Your task to perform on an android device: move an email to a new category in the gmail app Image 0: 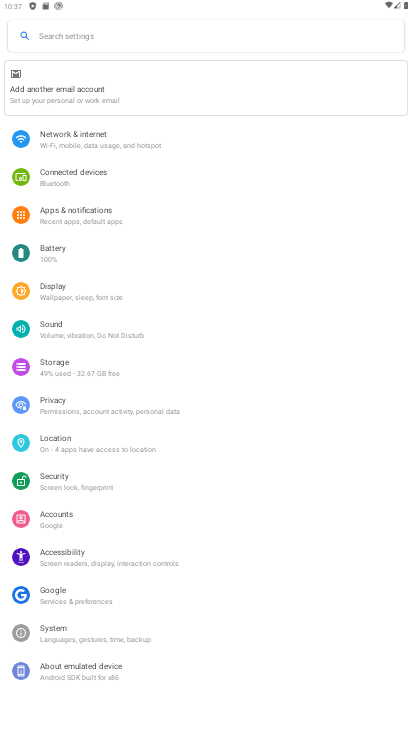
Step 0: press home button
Your task to perform on an android device: move an email to a new category in the gmail app Image 1: 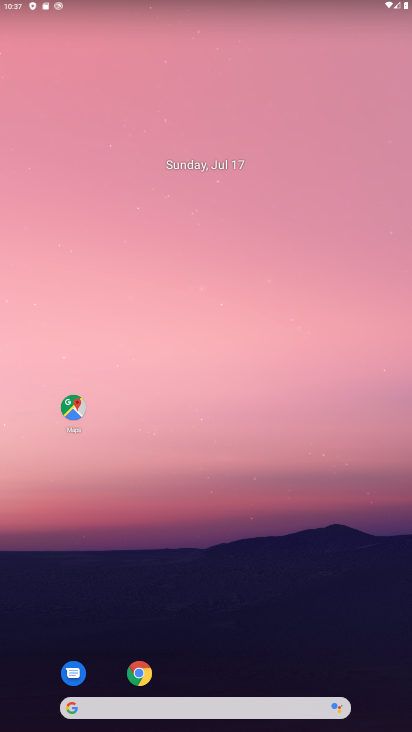
Step 1: drag from (220, 672) to (191, 120)
Your task to perform on an android device: move an email to a new category in the gmail app Image 2: 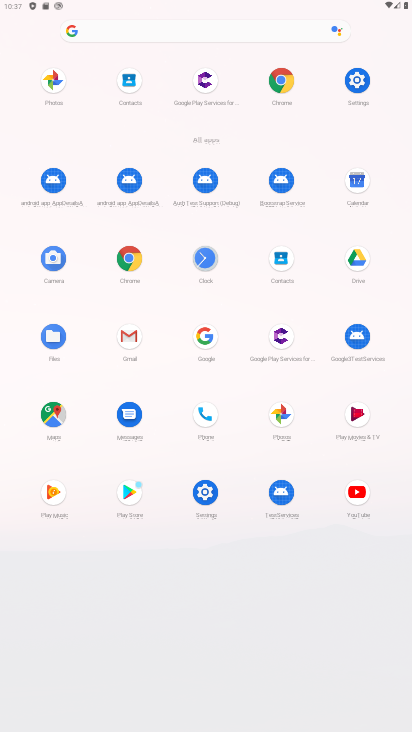
Step 2: click (129, 335)
Your task to perform on an android device: move an email to a new category in the gmail app Image 3: 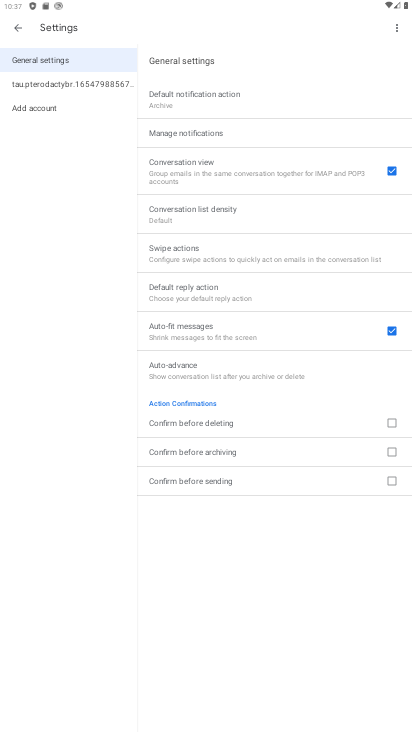
Step 3: press back button
Your task to perform on an android device: move an email to a new category in the gmail app Image 4: 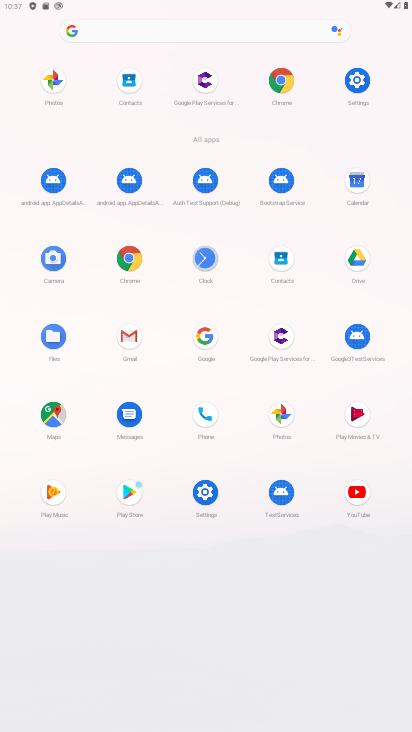
Step 4: click (125, 341)
Your task to perform on an android device: move an email to a new category in the gmail app Image 5: 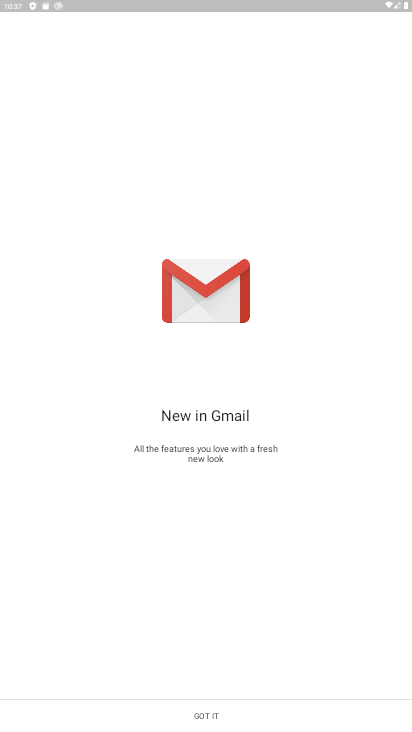
Step 5: click (202, 718)
Your task to perform on an android device: move an email to a new category in the gmail app Image 6: 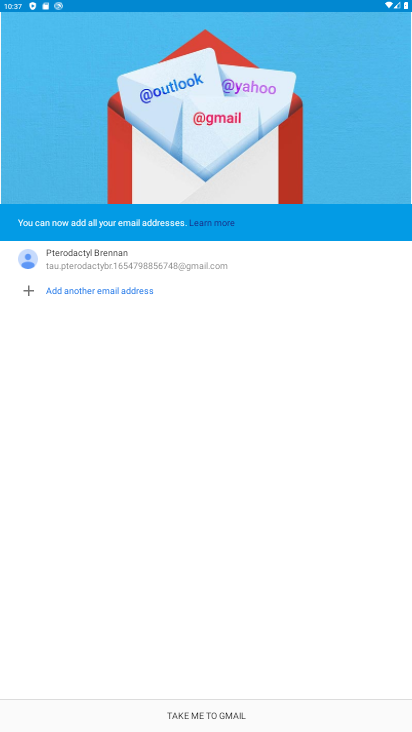
Step 6: click (204, 718)
Your task to perform on an android device: move an email to a new category in the gmail app Image 7: 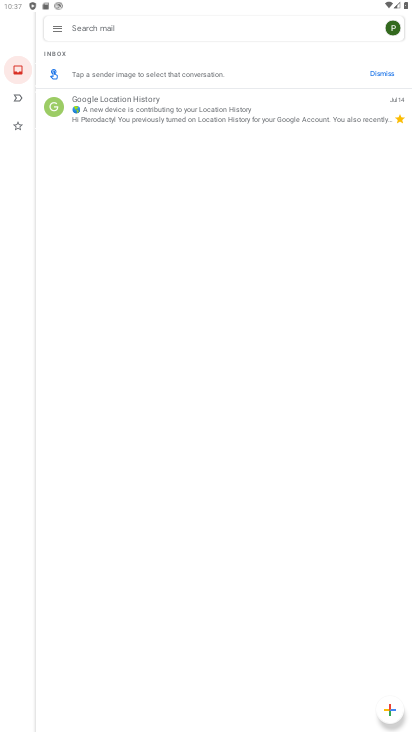
Step 7: click (54, 29)
Your task to perform on an android device: move an email to a new category in the gmail app Image 8: 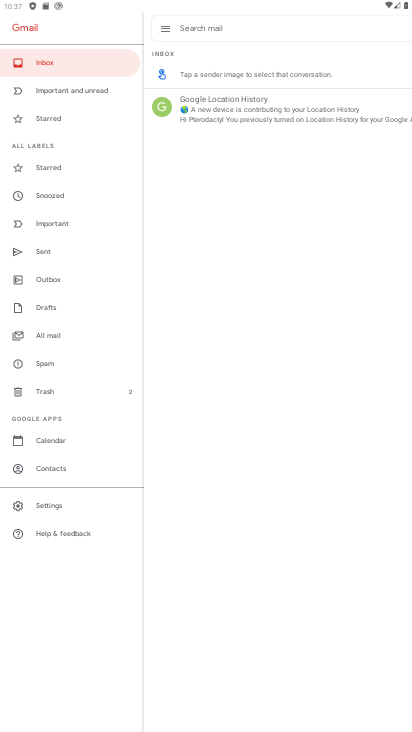
Step 8: click (51, 332)
Your task to perform on an android device: move an email to a new category in the gmail app Image 9: 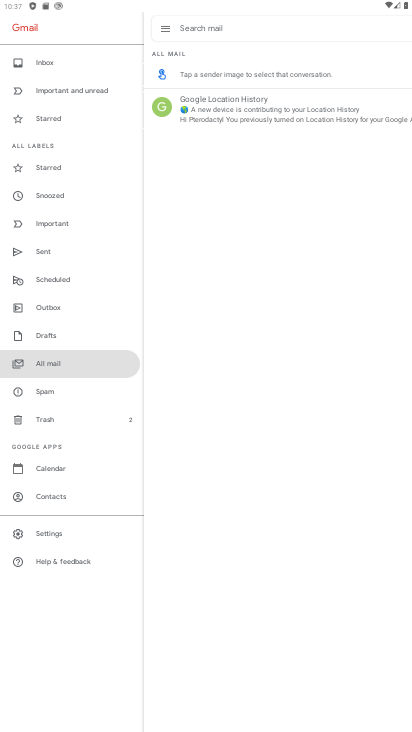
Step 9: click (292, 108)
Your task to perform on an android device: move an email to a new category in the gmail app Image 10: 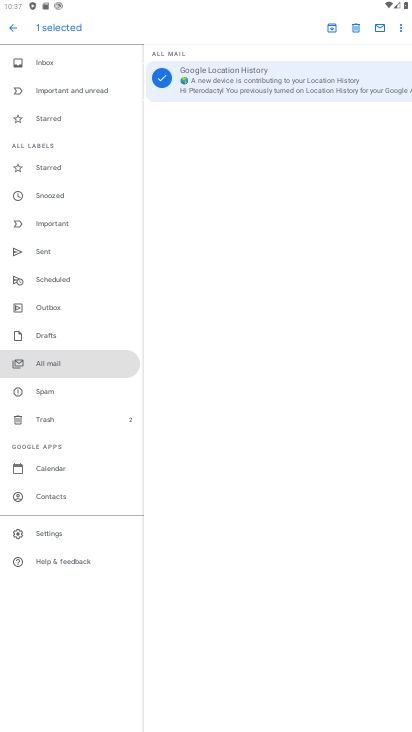
Step 10: click (399, 30)
Your task to perform on an android device: move an email to a new category in the gmail app Image 11: 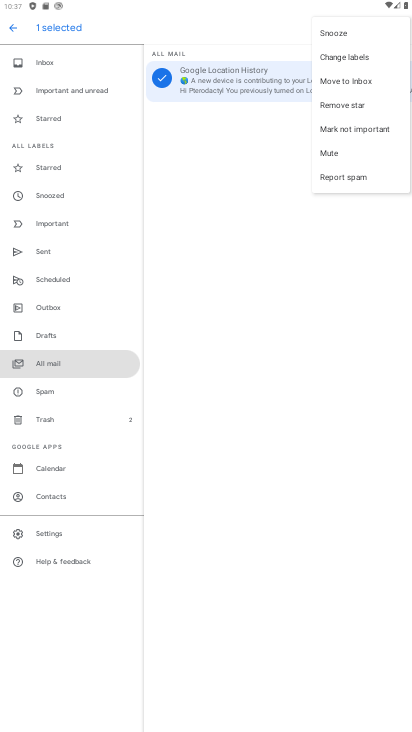
Step 11: click (354, 59)
Your task to perform on an android device: move an email to a new category in the gmail app Image 12: 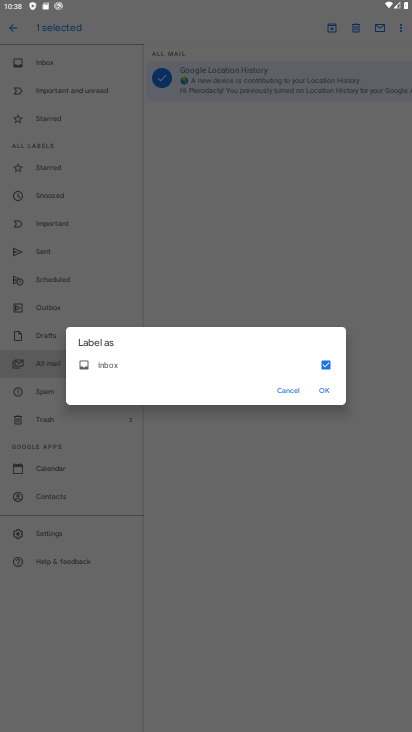
Step 12: click (326, 369)
Your task to perform on an android device: move an email to a new category in the gmail app Image 13: 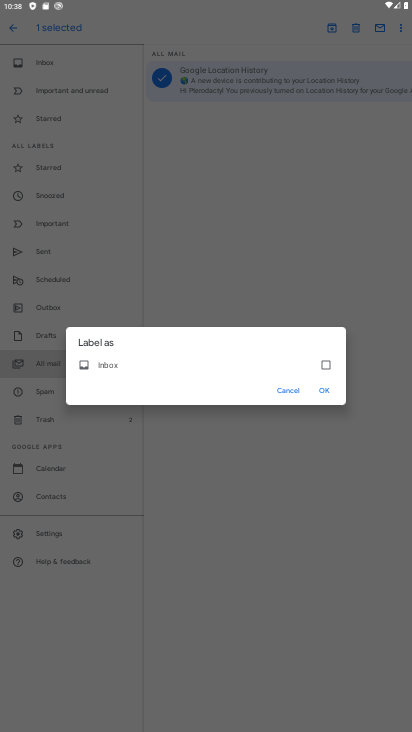
Step 13: click (324, 391)
Your task to perform on an android device: move an email to a new category in the gmail app Image 14: 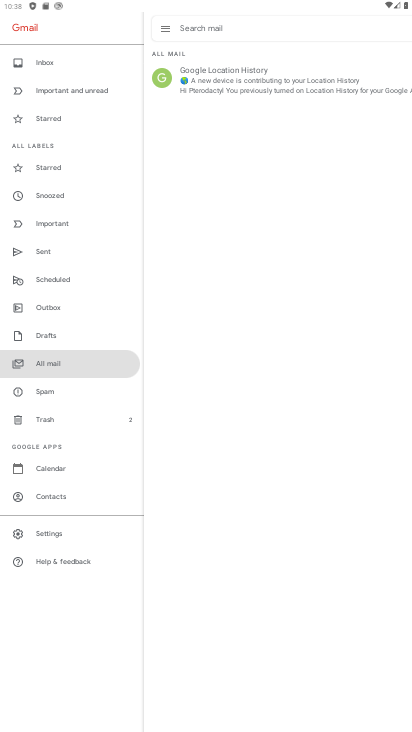
Step 14: task complete